Your task to perform on an android device: Open calendar and show me the first week of next month Image 0: 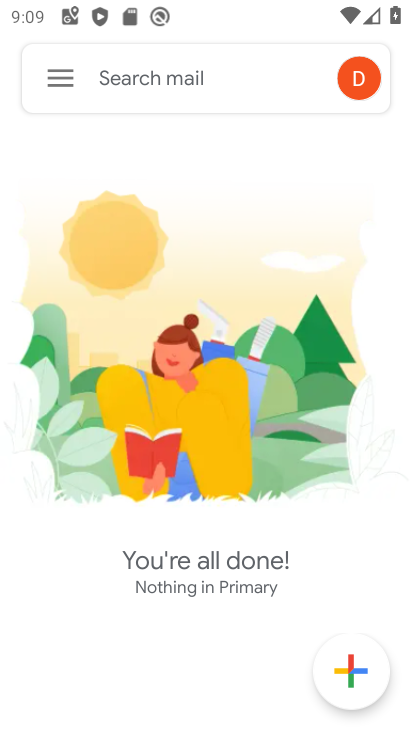
Step 0: press home button
Your task to perform on an android device: Open calendar and show me the first week of next month Image 1: 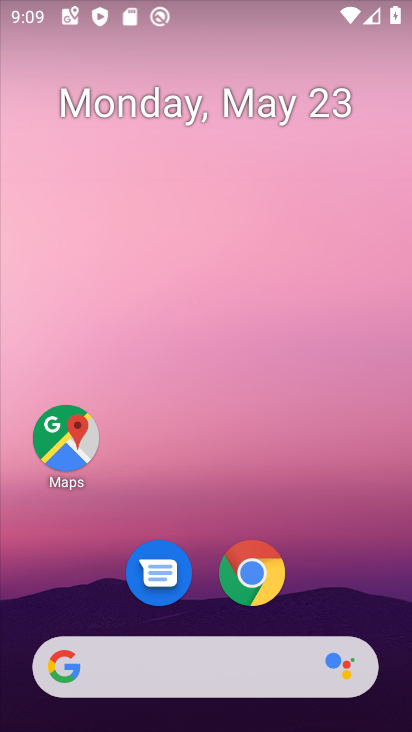
Step 1: drag from (380, 602) to (373, 228)
Your task to perform on an android device: Open calendar and show me the first week of next month Image 2: 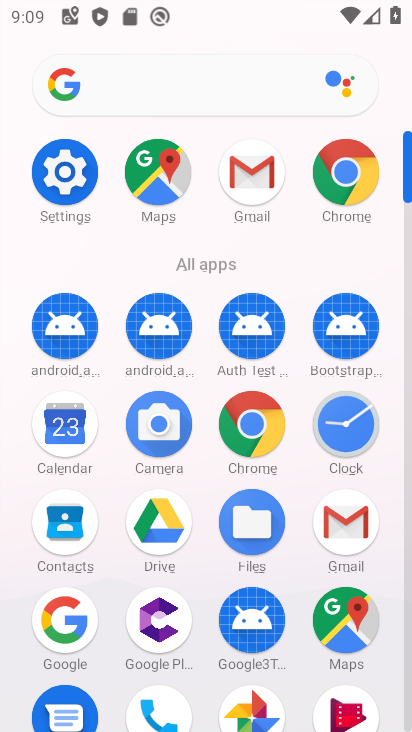
Step 2: click (69, 445)
Your task to perform on an android device: Open calendar and show me the first week of next month Image 3: 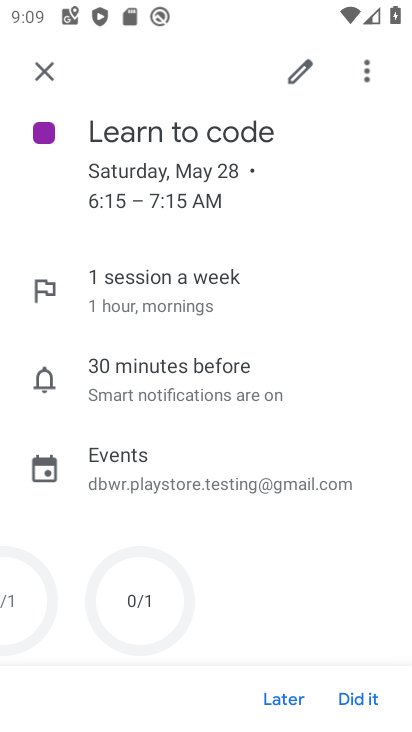
Step 3: click (36, 63)
Your task to perform on an android device: Open calendar and show me the first week of next month Image 4: 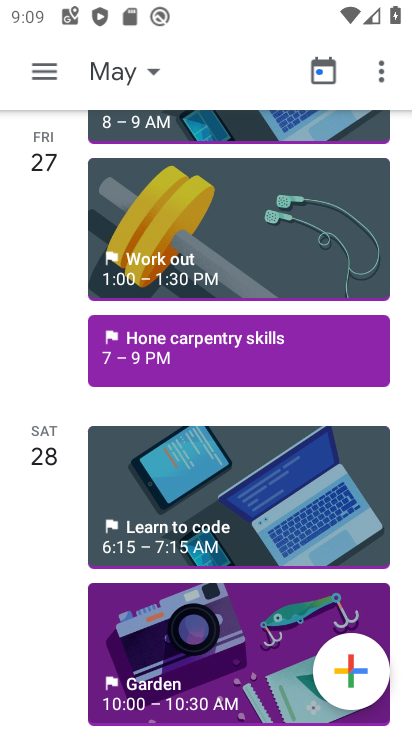
Step 4: click (149, 74)
Your task to perform on an android device: Open calendar and show me the first week of next month Image 5: 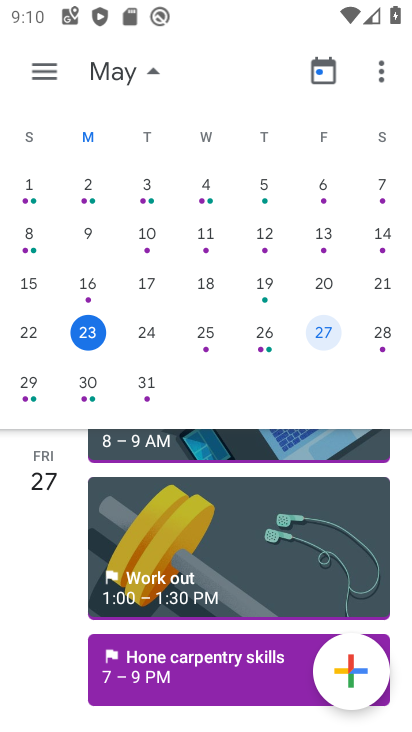
Step 5: drag from (402, 166) to (7, 157)
Your task to perform on an android device: Open calendar and show me the first week of next month Image 6: 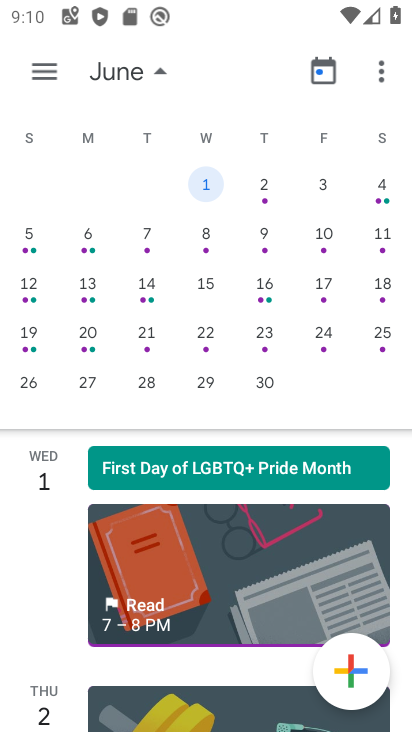
Step 6: click (259, 189)
Your task to perform on an android device: Open calendar and show me the first week of next month Image 7: 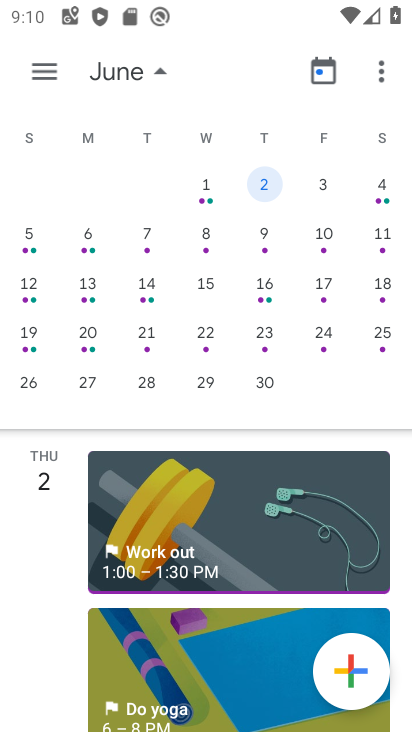
Step 7: task complete